Your task to perform on an android device: turn vacation reply on in the gmail app Image 0: 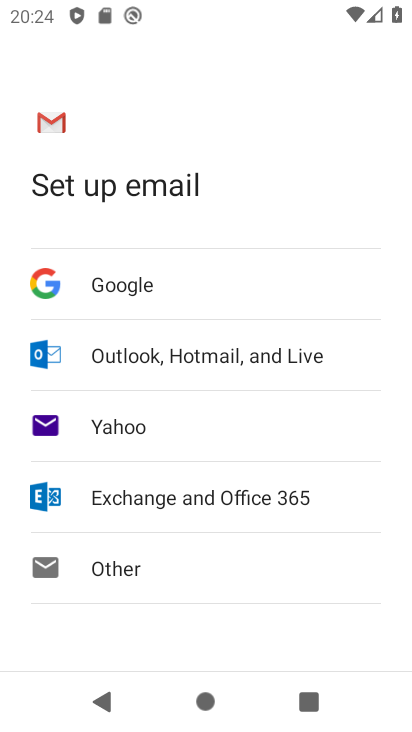
Step 0: press home button
Your task to perform on an android device: turn vacation reply on in the gmail app Image 1: 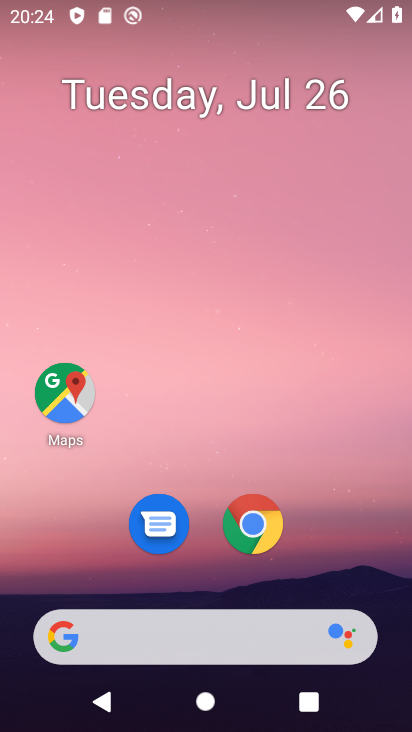
Step 1: drag from (163, 621) to (301, 104)
Your task to perform on an android device: turn vacation reply on in the gmail app Image 2: 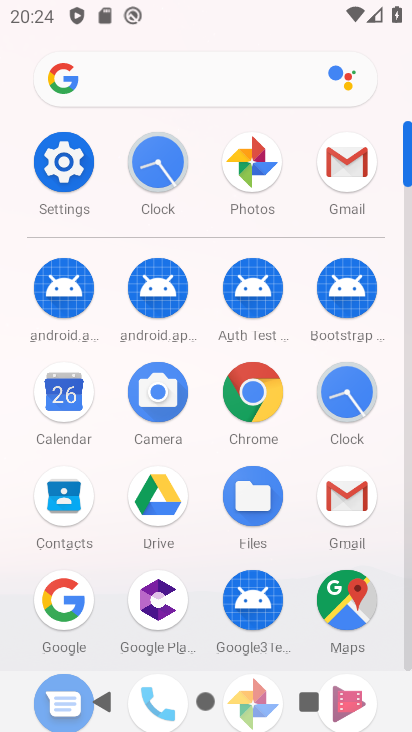
Step 2: click (350, 174)
Your task to perform on an android device: turn vacation reply on in the gmail app Image 3: 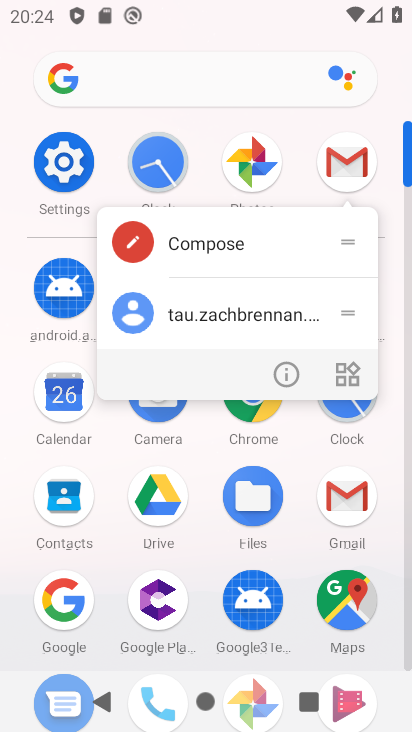
Step 3: click (350, 174)
Your task to perform on an android device: turn vacation reply on in the gmail app Image 4: 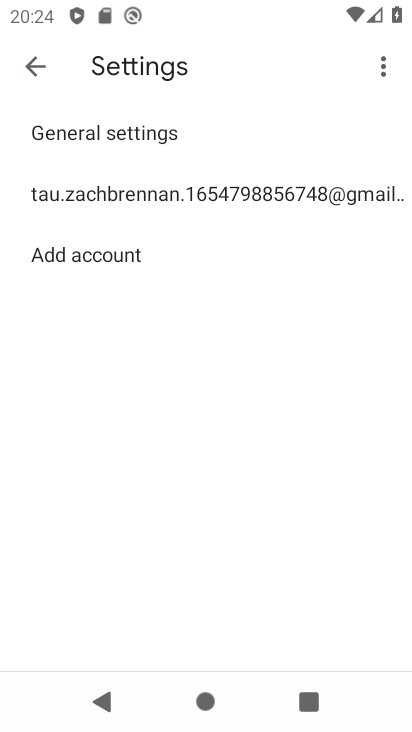
Step 4: click (275, 194)
Your task to perform on an android device: turn vacation reply on in the gmail app Image 5: 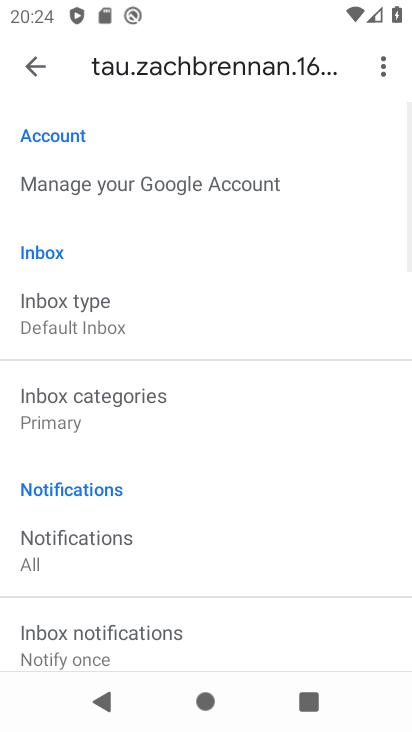
Step 5: drag from (209, 582) to (337, 80)
Your task to perform on an android device: turn vacation reply on in the gmail app Image 6: 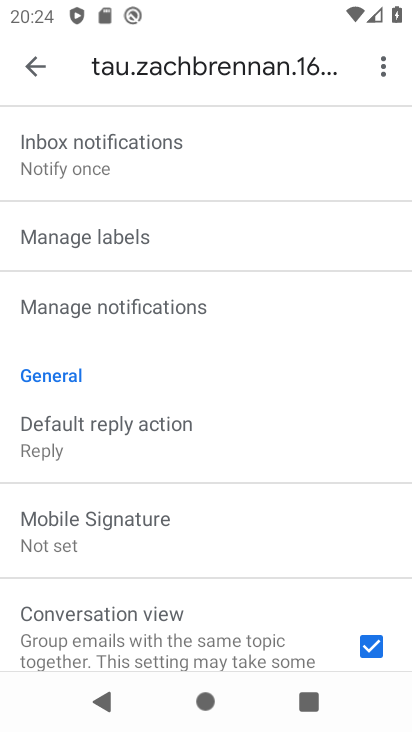
Step 6: drag from (225, 554) to (365, 74)
Your task to perform on an android device: turn vacation reply on in the gmail app Image 7: 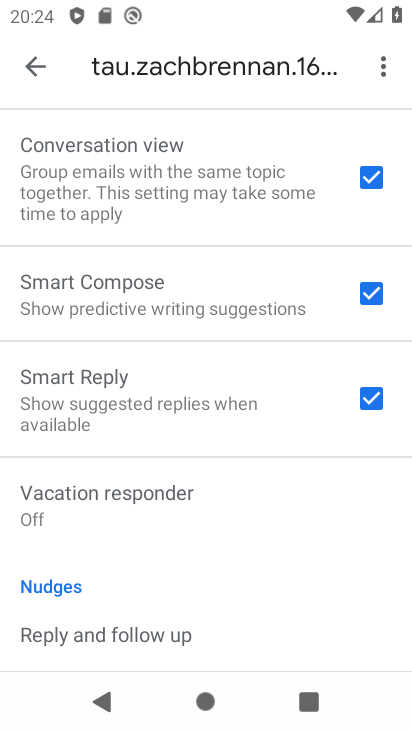
Step 7: click (153, 499)
Your task to perform on an android device: turn vacation reply on in the gmail app Image 8: 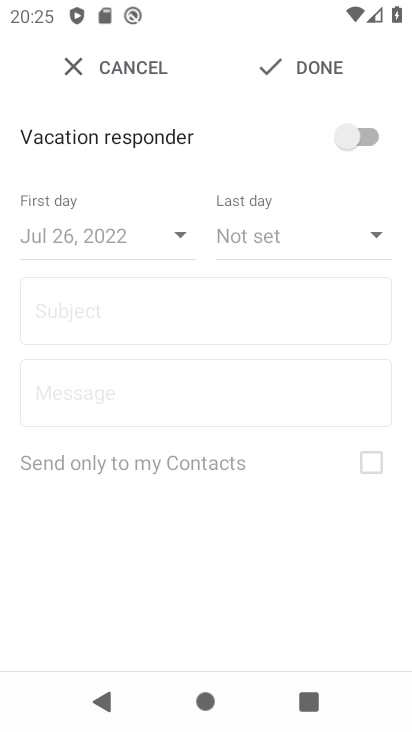
Step 8: click (360, 134)
Your task to perform on an android device: turn vacation reply on in the gmail app Image 9: 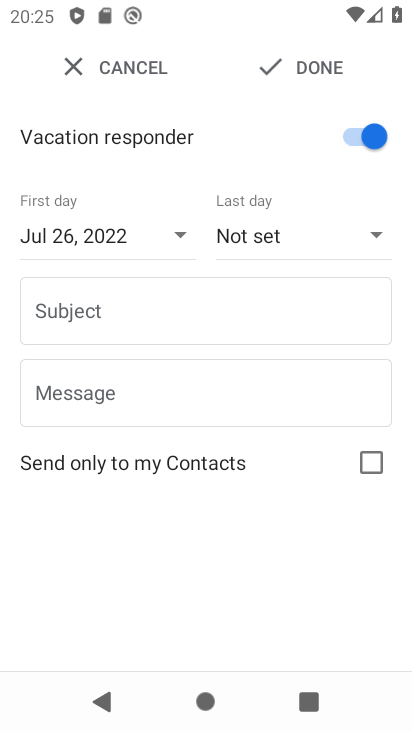
Step 9: task complete